Your task to perform on an android device: Open Google Maps and go to "Timeline" Image 0: 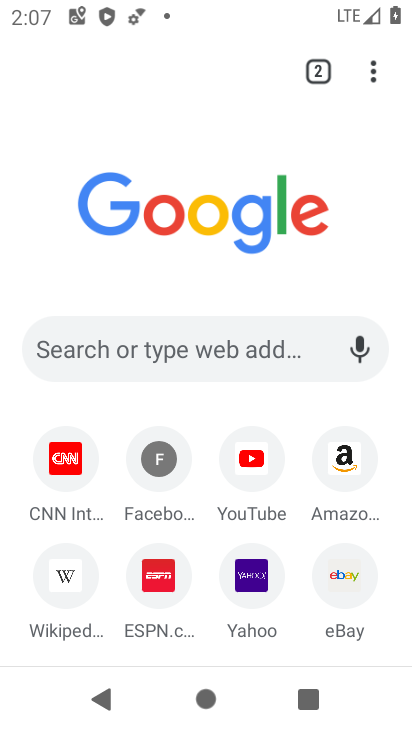
Step 0: press home button
Your task to perform on an android device: Open Google Maps and go to "Timeline" Image 1: 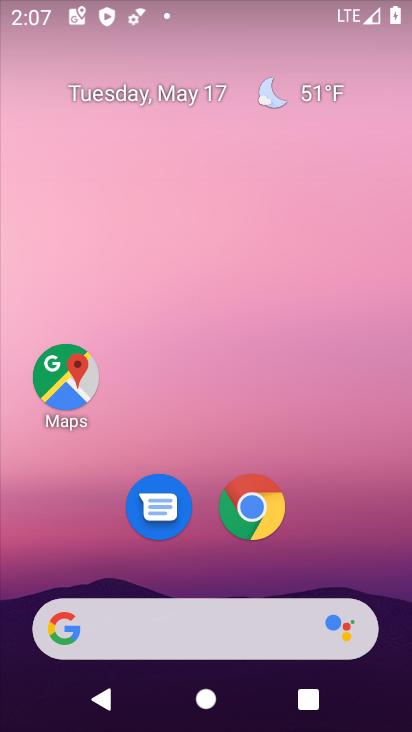
Step 1: click (80, 373)
Your task to perform on an android device: Open Google Maps and go to "Timeline" Image 2: 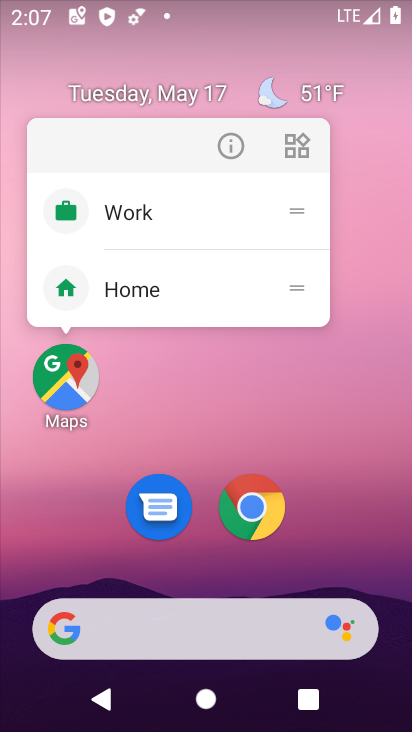
Step 2: click (72, 370)
Your task to perform on an android device: Open Google Maps and go to "Timeline" Image 3: 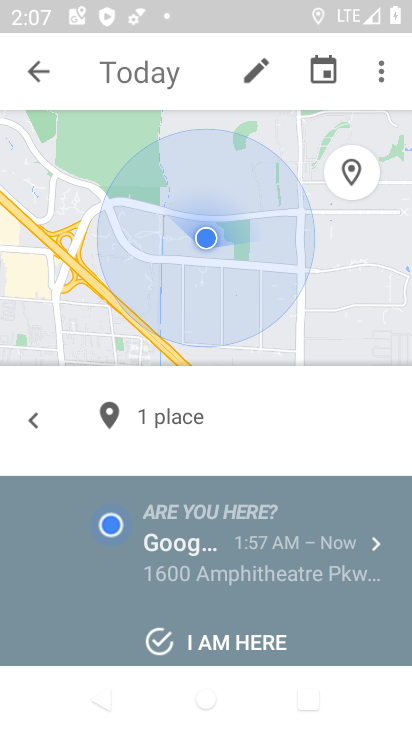
Step 3: task complete